Your task to perform on an android device: Go to battery settings Image 0: 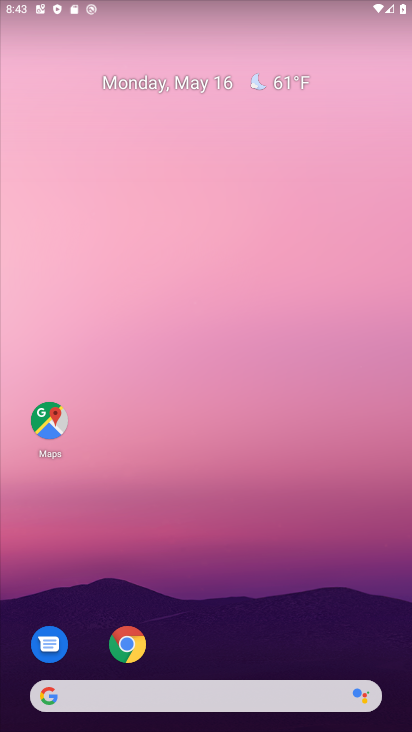
Step 0: drag from (219, 610) to (205, 98)
Your task to perform on an android device: Go to battery settings Image 1: 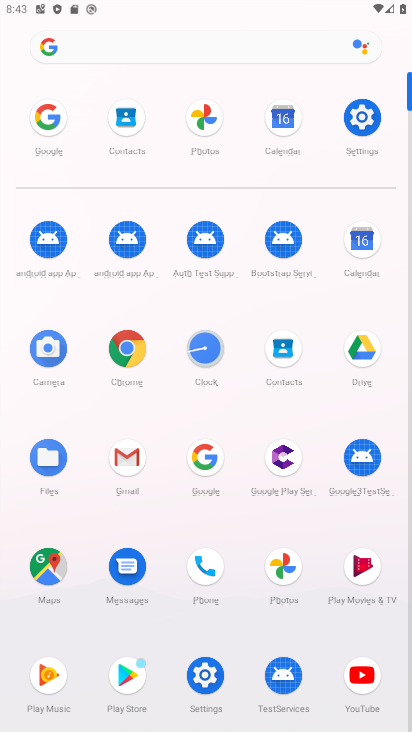
Step 1: click (362, 121)
Your task to perform on an android device: Go to battery settings Image 2: 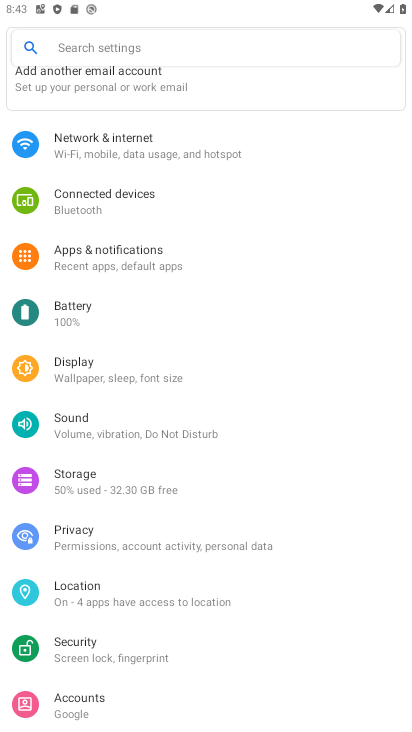
Step 2: click (95, 312)
Your task to perform on an android device: Go to battery settings Image 3: 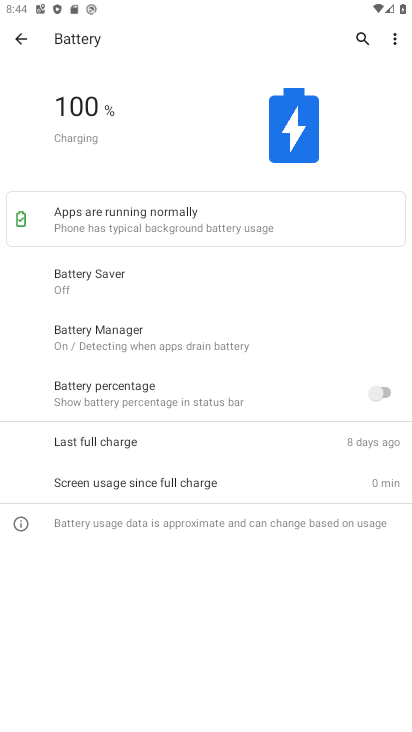
Step 3: task complete